Your task to perform on an android device: What's on my calendar today? Image 0: 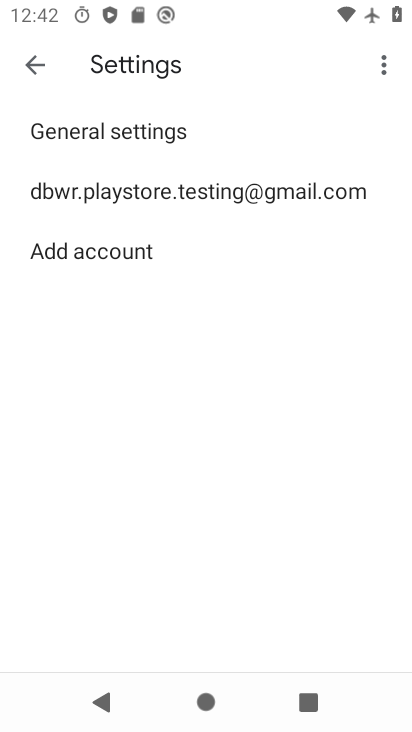
Step 0: press home button
Your task to perform on an android device: What's on my calendar today? Image 1: 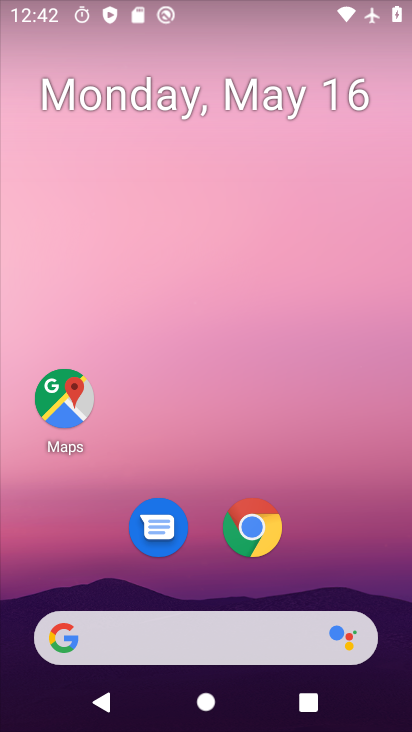
Step 1: drag from (157, 640) to (348, 126)
Your task to perform on an android device: What's on my calendar today? Image 2: 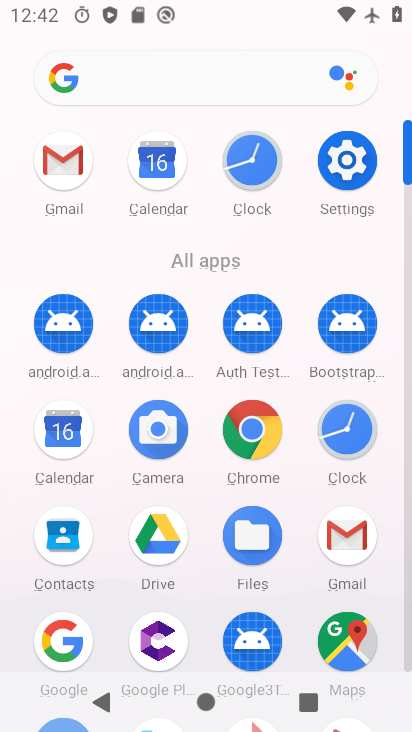
Step 2: click (78, 441)
Your task to perform on an android device: What's on my calendar today? Image 3: 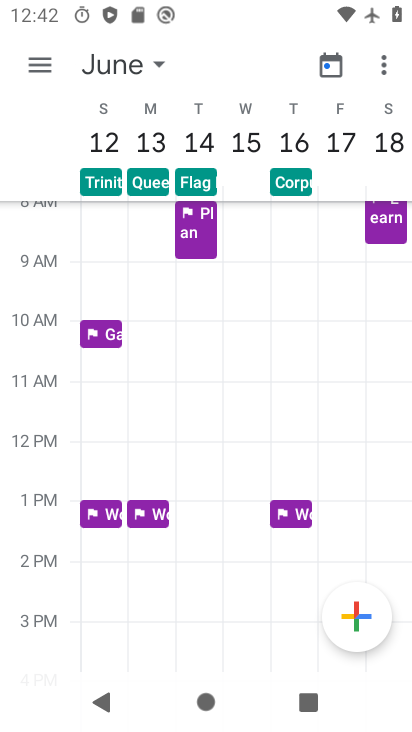
Step 3: click (120, 62)
Your task to perform on an android device: What's on my calendar today? Image 4: 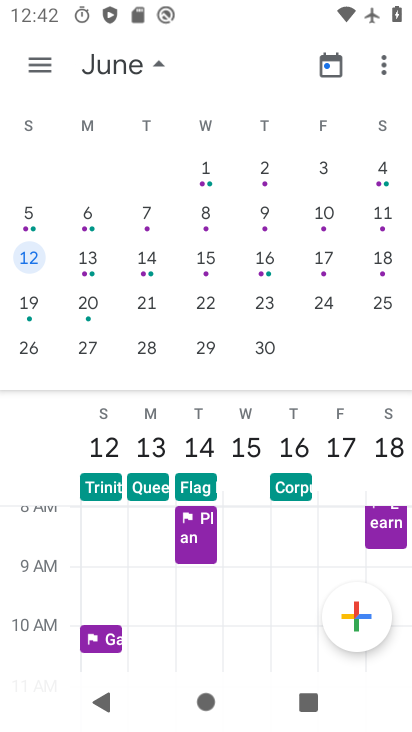
Step 4: drag from (111, 240) to (359, 231)
Your task to perform on an android device: What's on my calendar today? Image 5: 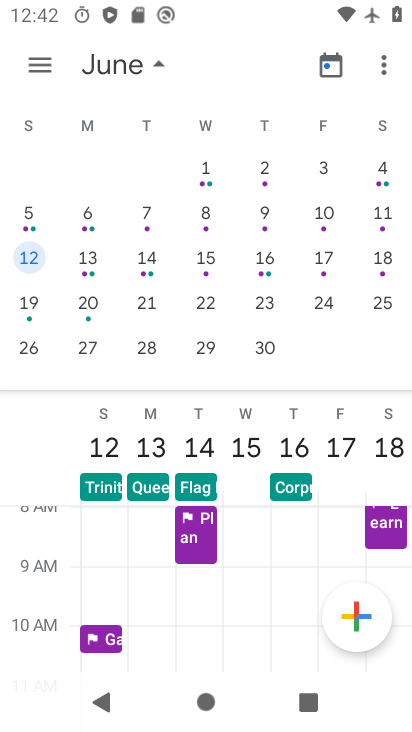
Step 5: drag from (134, 242) to (388, 245)
Your task to perform on an android device: What's on my calendar today? Image 6: 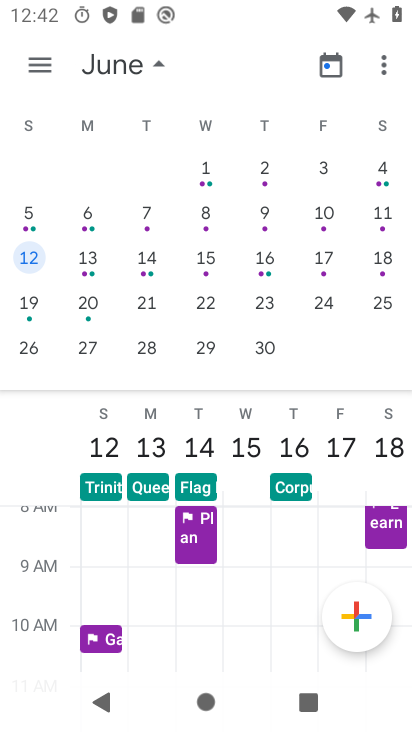
Step 6: drag from (111, 244) to (409, 255)
Your task to perform on an android device: What's on my calendar today? Image 7: 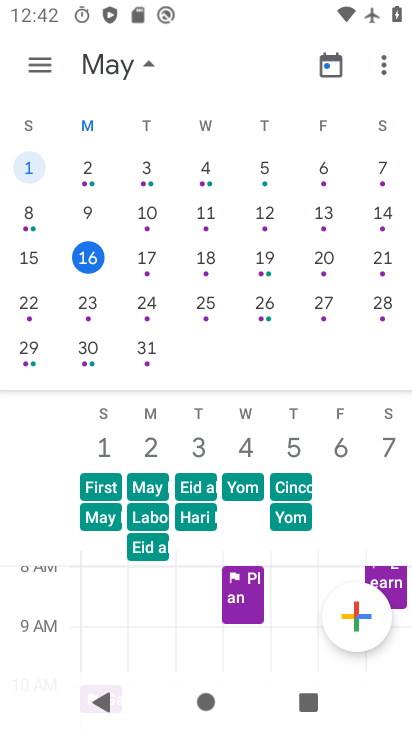
Step 7: click (85, 261)
Your task to perform on an android device: What's on my calendar today? Image 8: 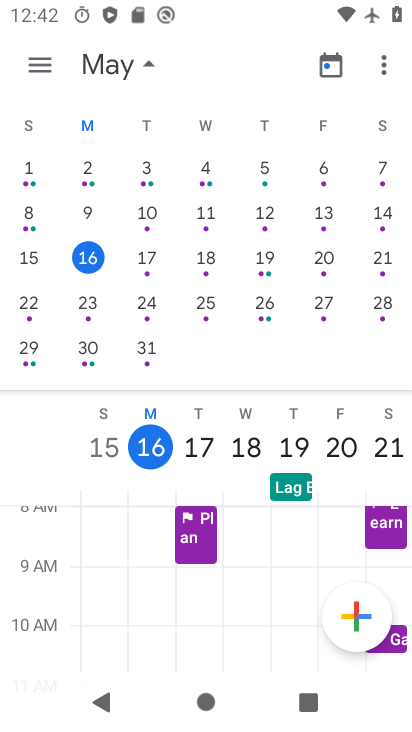
Step 8: click (42, 66)
Your task to perform on an android device: What's on my calendar today? Image 9: 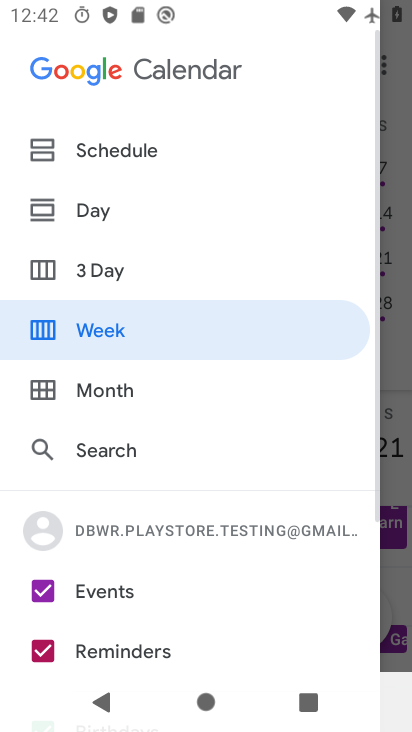
Step 9: click (116, 146)
Your task to perform on an android device: What's on my calendar today? Image 10: 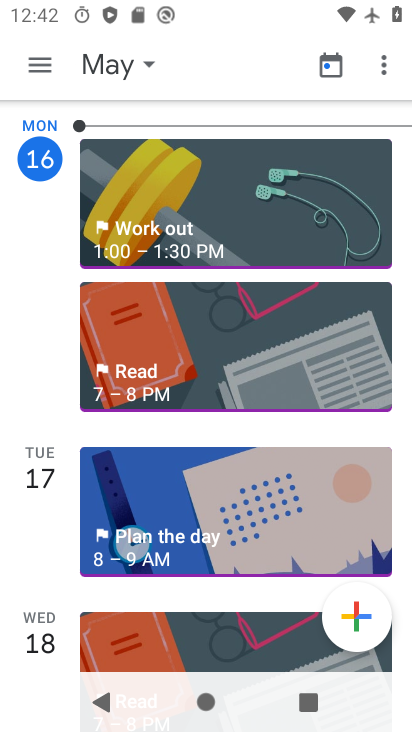
Step 10: click (137, 229)
Your task to perform on an android device: What's on my calendar today? Image 11: 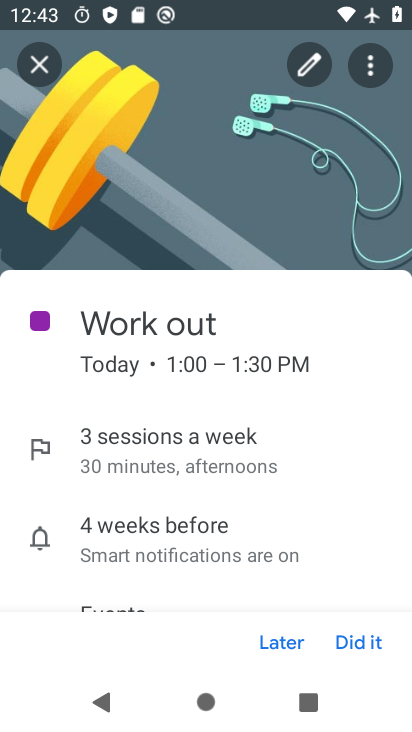
Step 11: task complete